Your task to perform on an android device: see creations saved in the google photos Image 0: 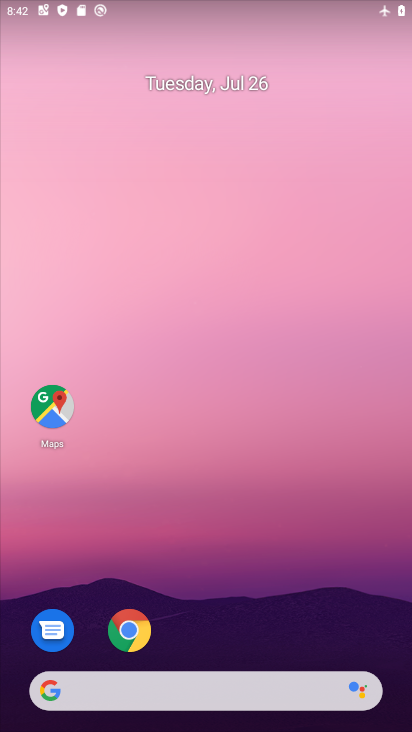
Step 0: drag from (287, 648) to (234, 265)
Your task to perform on an android device: see creations saved in the google photos Image 1: 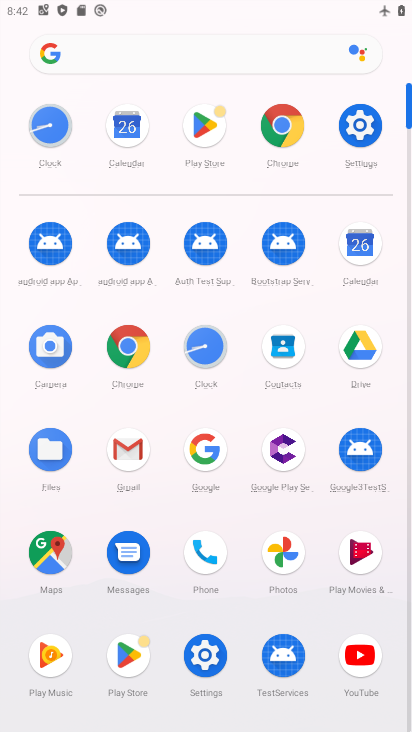
Step 1: click (273, 544)
Your task to perform on an android device: see creations saved in the google photos Image 2: 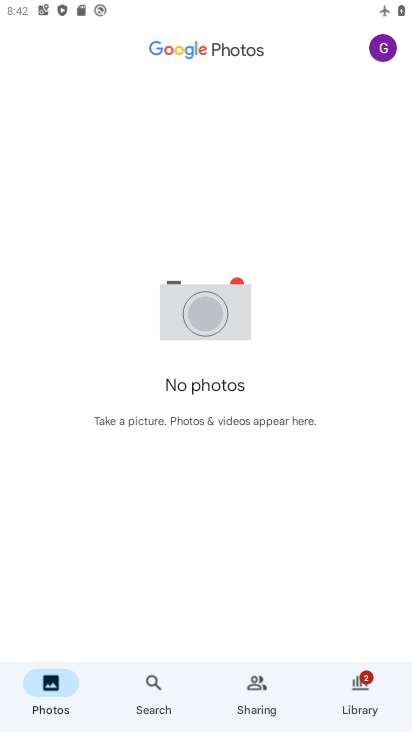
Step 2: task complete